Your task to perform on an android device: set the stopwatch Image 0: 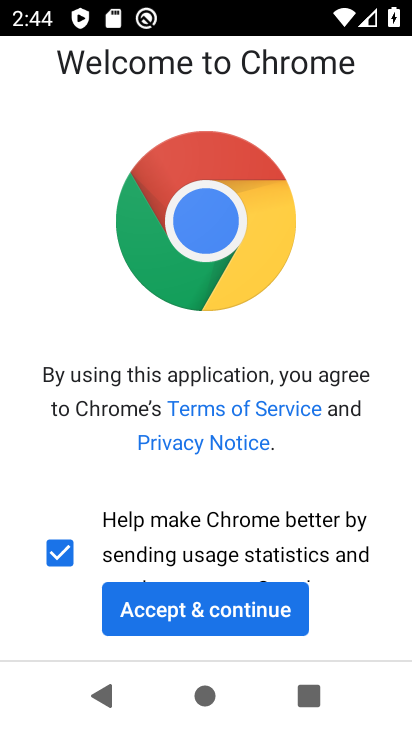
Step 0: press back button
Your task to perform on an android device: set the stopwatch Image 1: 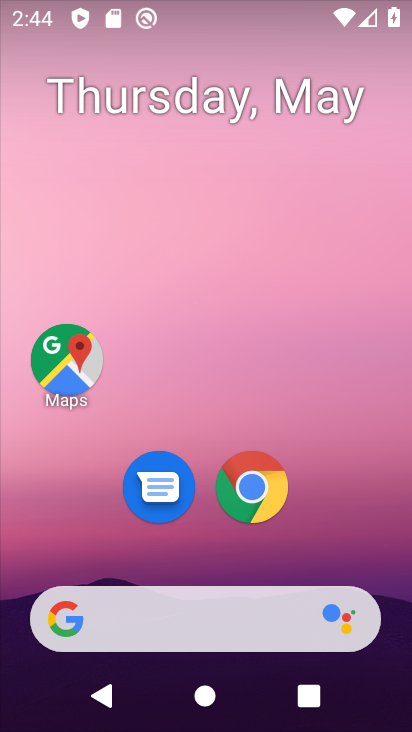
Step 1: drag from (210, 571) to (312, 65)
Your task to perform on an android device: set the stopwatch Image 2: 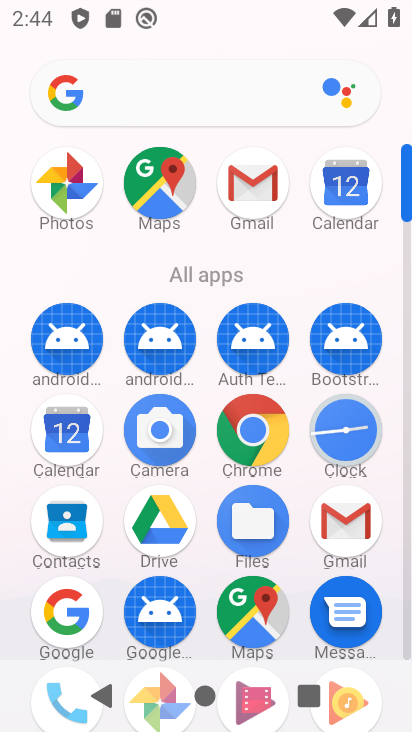
Step 2: click (348, 445)
Your task to perform on an android device: set the stopwatch Image 3: 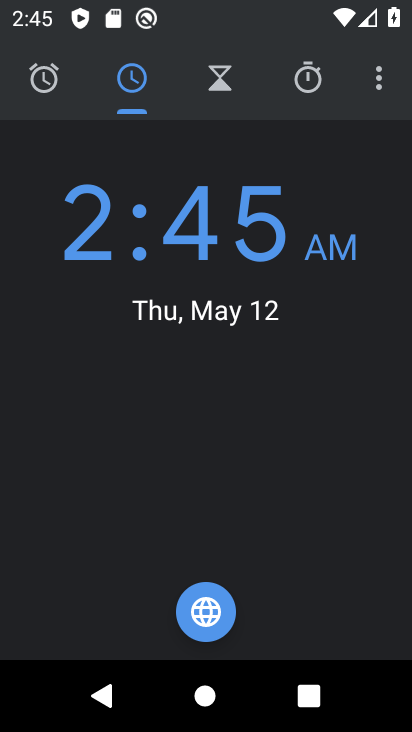
Step 3: click (329, 98)
Your task to perform on an android device: set the stopwatch Image 4: 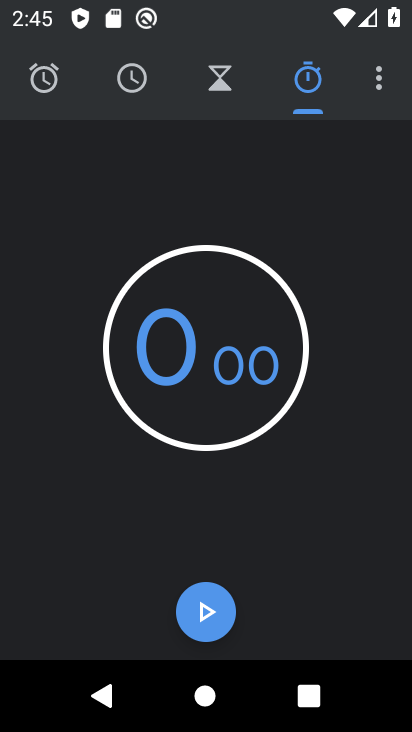
Step 4: click (218, 613)
Your task to perform on an android device: set the stopwatch Image 5: 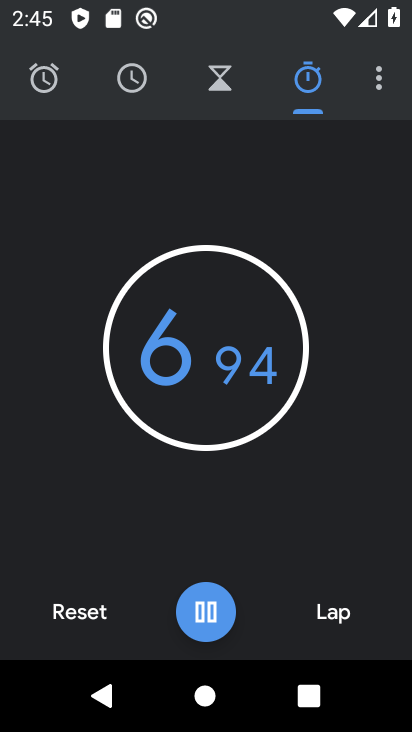
Step 5: task complete